Your task to perform on an android device: choose inbox layout in the gmail app Image 0: 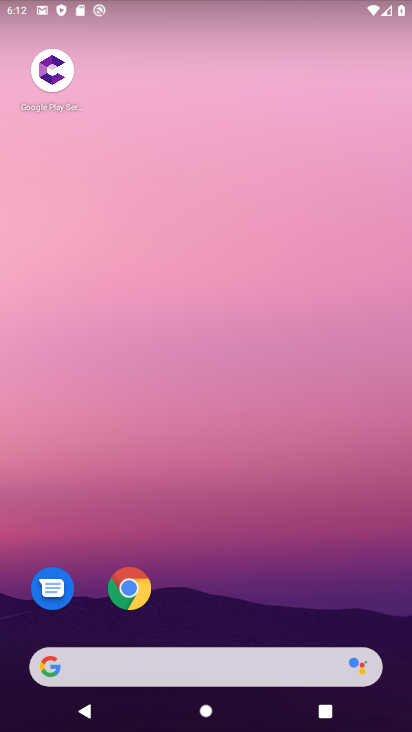
Step 0: drag from (396, 649) to (293, 40)
Your task to perform on an android device: choose inbox layout in the gmail app Image 1: 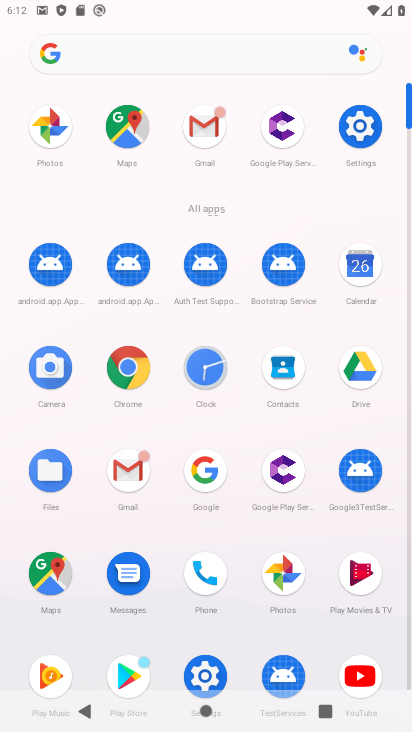
Step 1: click (126, 499)
Your task to perform on an android device: choose inbox layout in the gmail app Image 2: 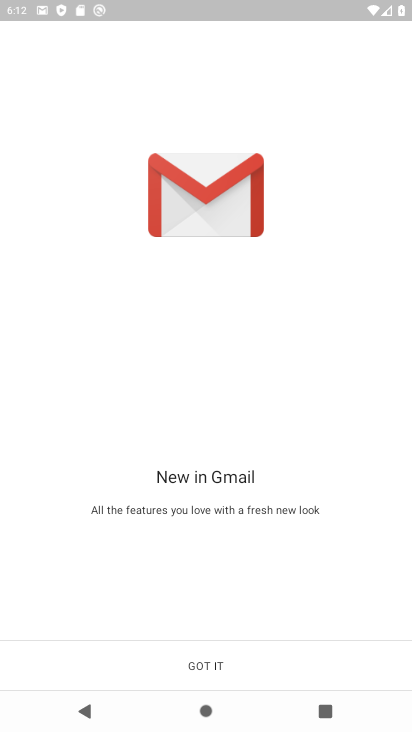
Step 2: click (202, 657)
Your task to perform on an android device: choose inbox layout in the gmail app Image 3: 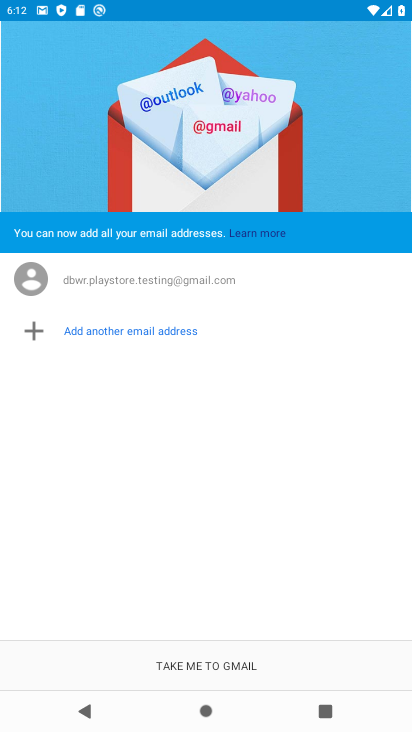
Step 3: click (202, 657)
Your task to perform on an android device: choose inbox layout in the gmail app Image 4: 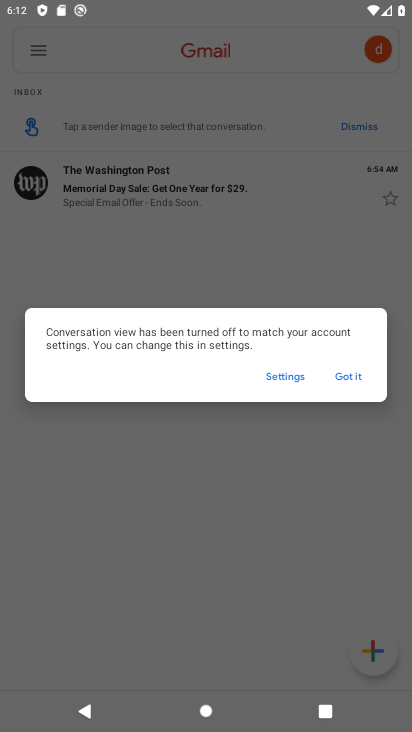
Step 4: click (346, 382)
Your task to perform on an android device: choose inbox layout in the gmail app Image 5: 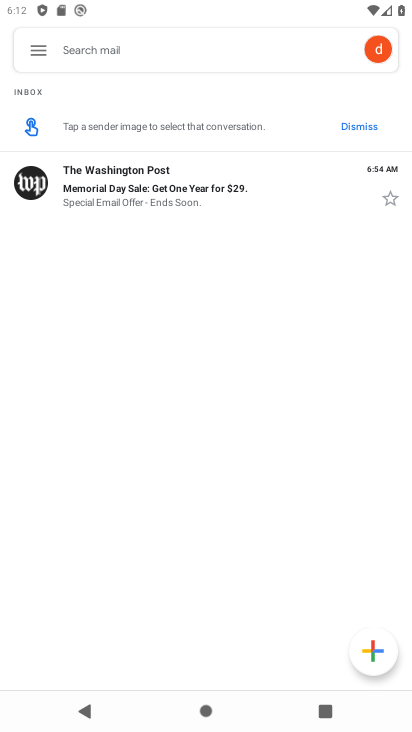
Step 5: click (216, 182)
Your task to perform on an android device: choose inbox layout in the gmail app Image 6: 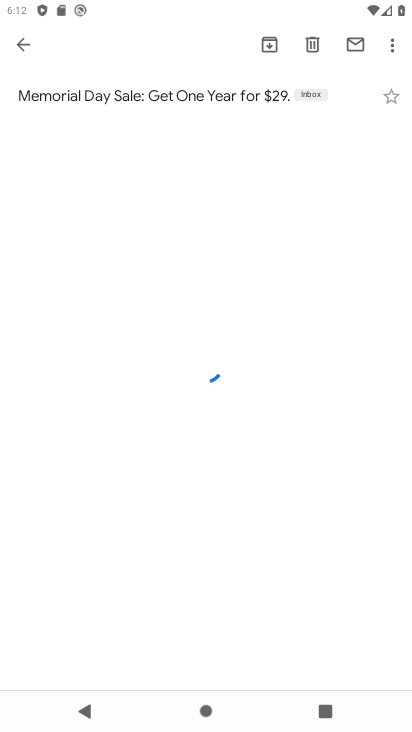
Step 6: click (400, 46)
Your task to perform on an android device: choose inbox layout in the gmail app Image 7: 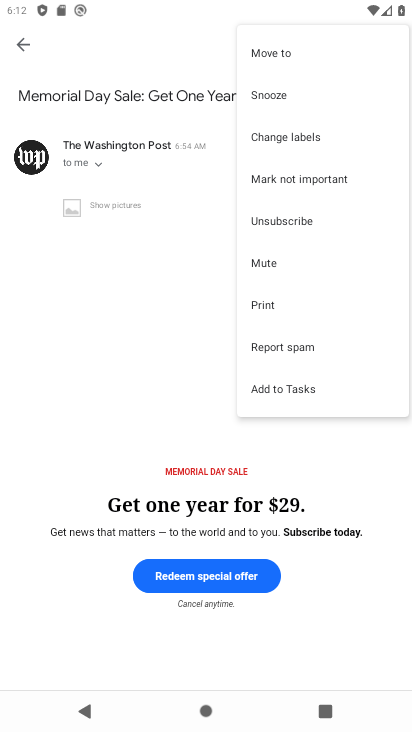
Step 7: task complete